Your task to perform on an android device: open sync settings in chrome Image 0: 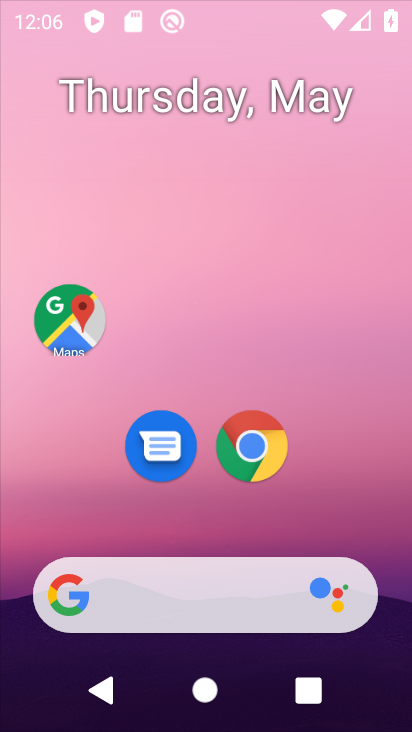
Step 0: press home button
Your task to perform on an android device: open sync settings in chrome Image 1: 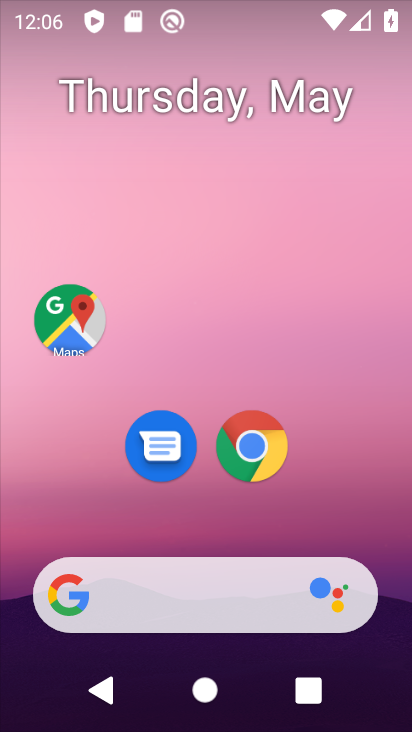
Step 1: click (260, 440)
Your task to perform on an android device: open sync settings in chrome Image 2: 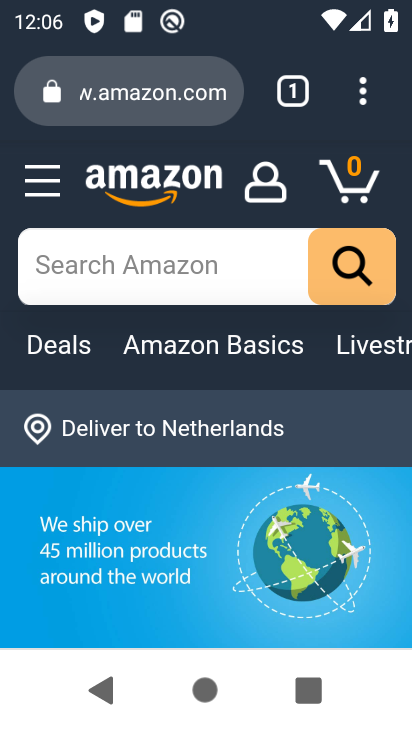
Step 2: click (363, 81)
Your task to perform on an android device: open sync settings in chrome Image 3: 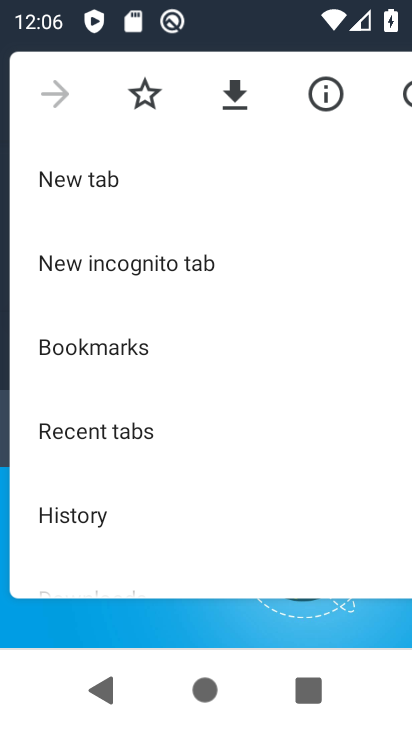
Step 3: drag from (222, 531) to (220, 133)
Your task to perform on an android device: open sync settings in chrome Image 4: 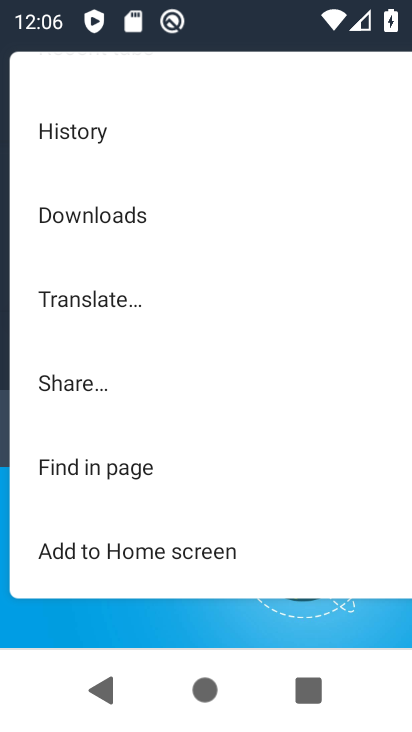
Step 4: drag from (218, 432) to (212, 55)
Your task to perform on an android device: open sync settings in chrome Image 5: 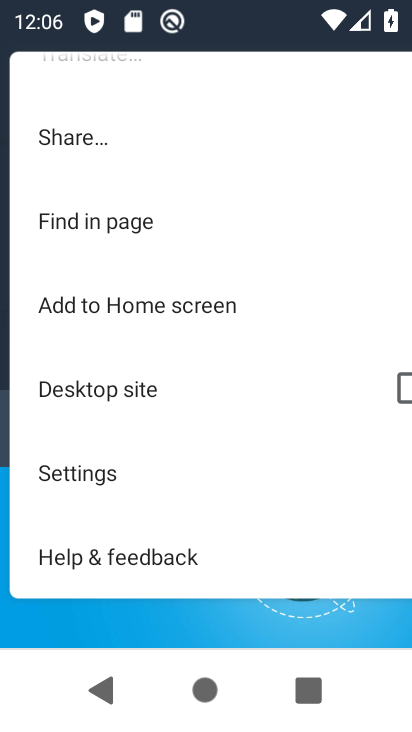
Step 5: click (161, 464)
Your task to perform on an android device: open sync settings in chrome Image 6: 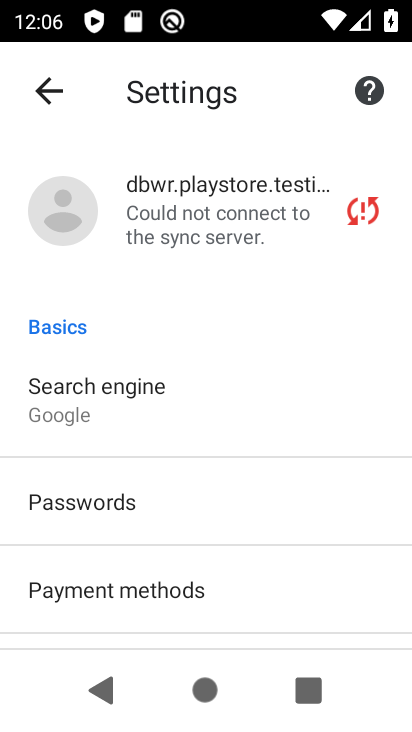
Step 6: click (156, 231)
Your task to perform on an android device: open sync settings in chrome Image 7: 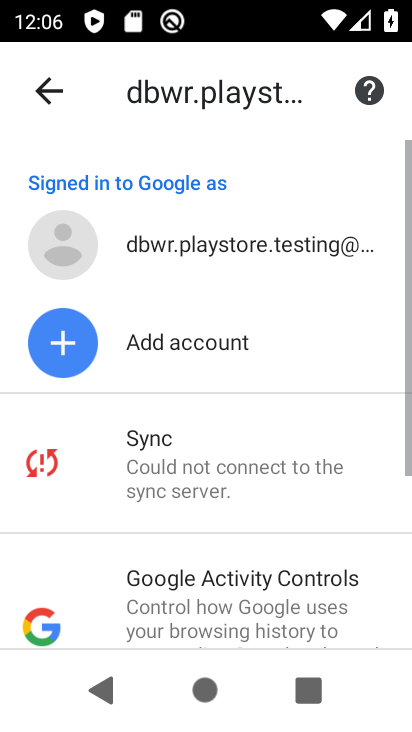
Step 7: click (79, 484)
Your task to perform on an android device: open sync settings in chrome Image 8: 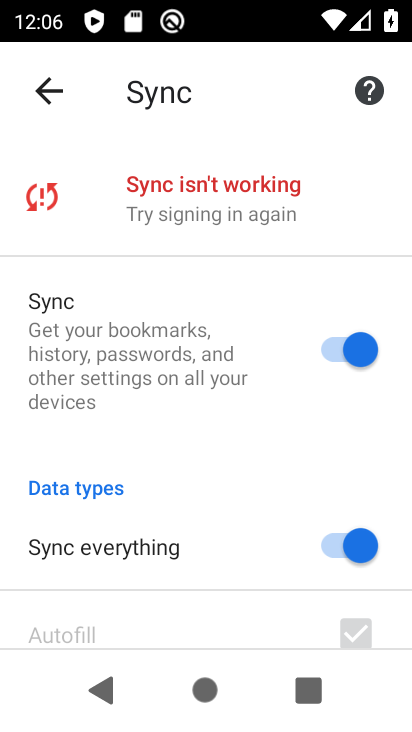
Step 8: task complete